Your task to perform on an android device: Show the shopping cart on target. Add "alienware area 51" to the cart on target Image 0: 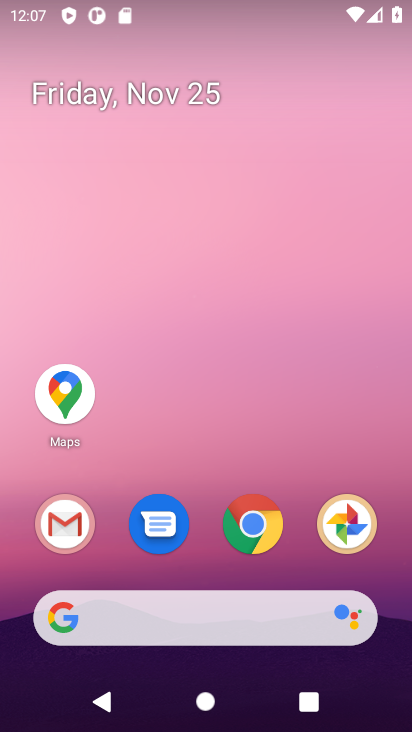
Step 0: click (256, 531)
Your task to perform on an android device: Show the shopping cart on target. Add "alienware area 51" to the cart on target Image 1: 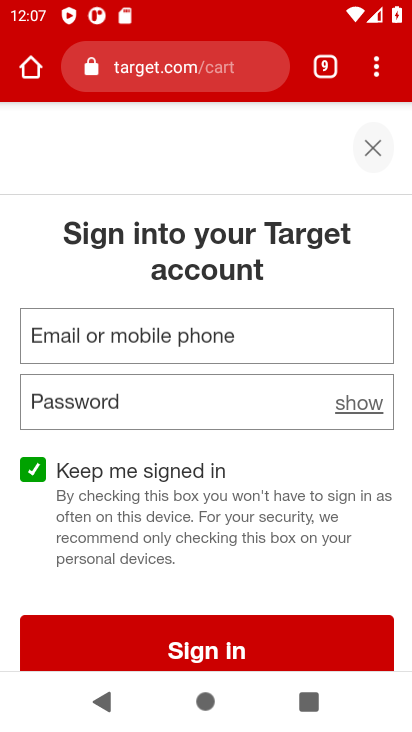
Step 1: click (373, 147)
Your task to perform on an android device: Show the shopping cart on target. Add "alienware area 51" to the cart on target Image 2: 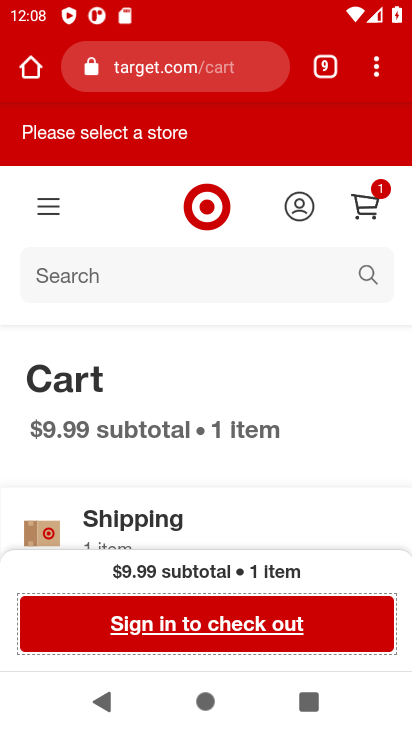
Step 2: drag from (221, 462) to (247, 241)
Your task to perform on an android device: Show the shopping cart on target. Add "alienware area 51" to the cart on target Image 3: 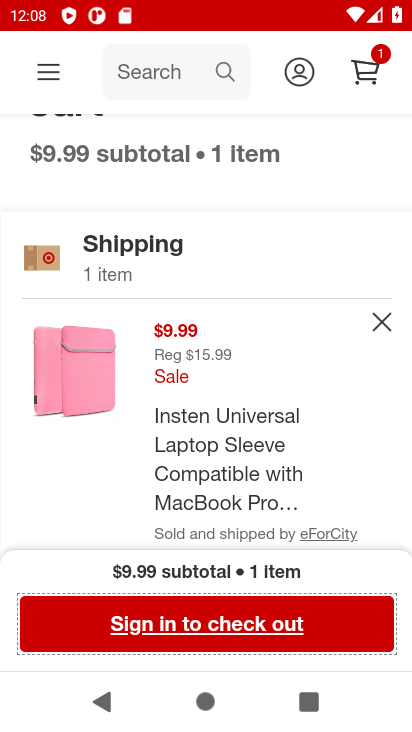
Step 3: drag from (248, 240) to (250, 428)
Your task to perform on an android device: Show the shopping cart on target. Add "alienware area 51" to the cart on target Image 4: 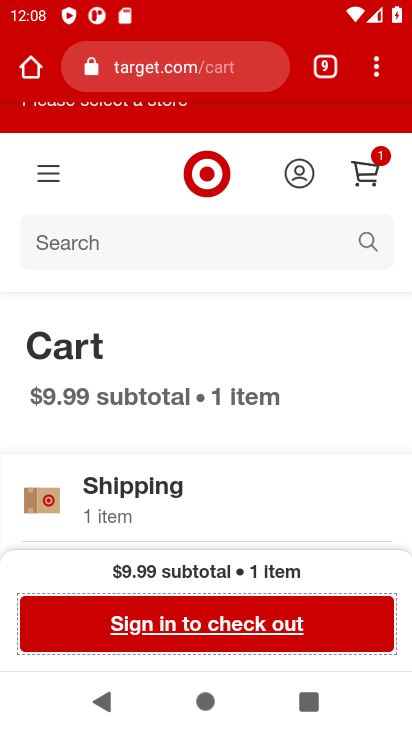
Step 4: drag from (250, 428) to (260, 208)
Your task to perform on an android device: Show the shopping cart on target. Add "alienware area 51" to the cart on target Image 5: 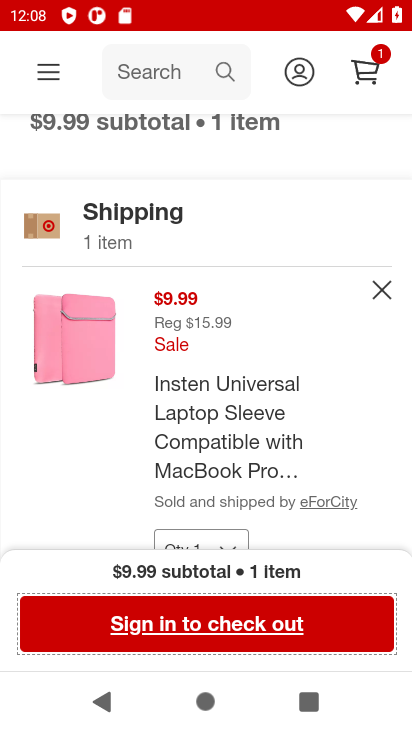
Step 5: drag from (234, 290) to (224, 541)
Your task to perform on an android device: Show the shopping cart on target. Add "alienware area 51" to the cart on target Image 6: 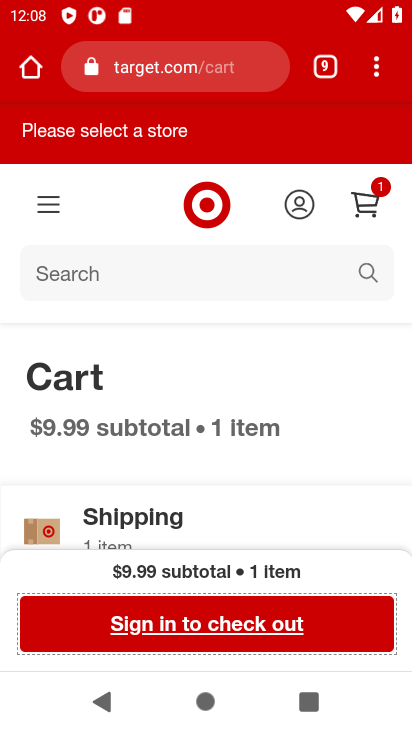
Step 6: click (367, 275)
Your task to perform on an android device: Show the shopping cart on target. Add "alienware area 51" to the cart on target Image 7: 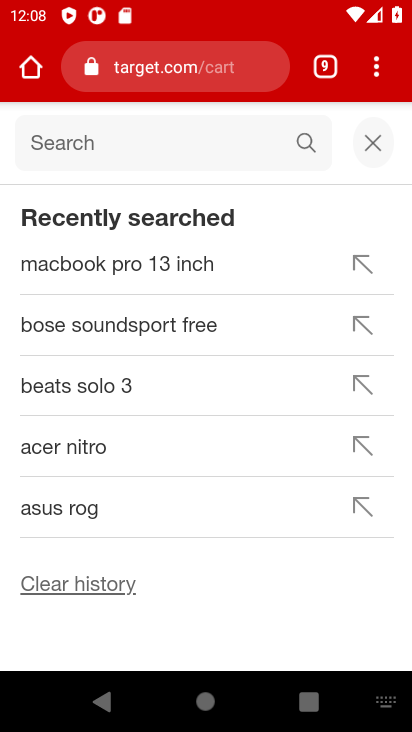
Step 7: type "alienware area 51"
Your task to perform on an android device: Show the shopping cart on target. Add "alienware area 51" to the cart on target Image 8: 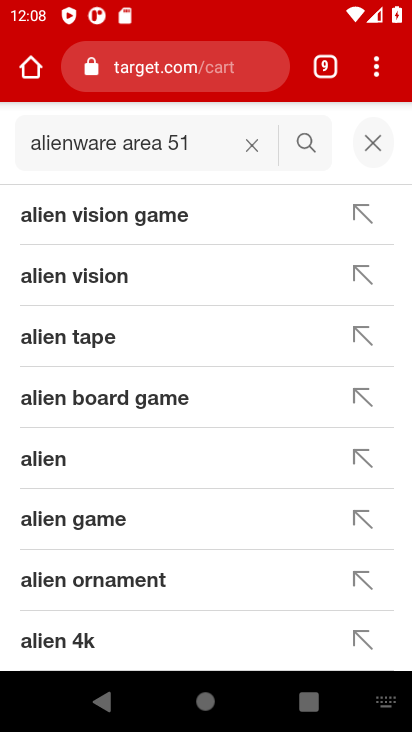
Step 8: click (308, 145)
Your task to perform on an android device: Show the shopping cart on target. Add "alienware area 51" to the cart on target Image 9: 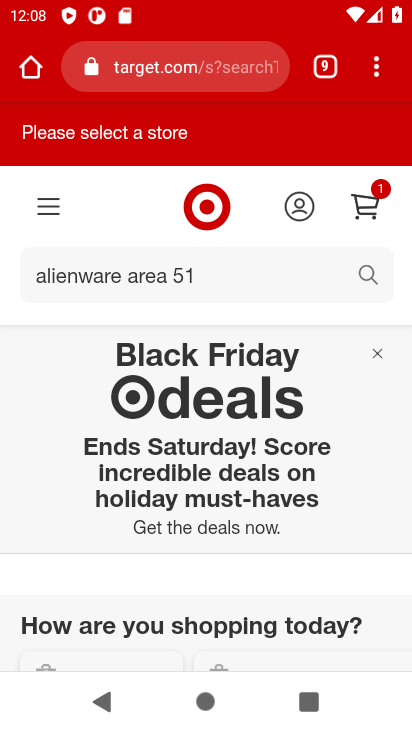
Step 9: task complete